Your task to perform on an android device: Open notification settings Image 0: 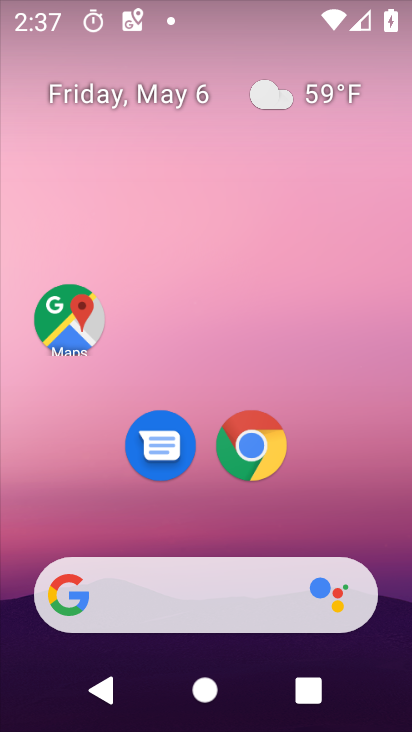
Step 0: drag from (405, 596) to (233, 73)
Your task to perform on an android device: Open notification settings Image 1: 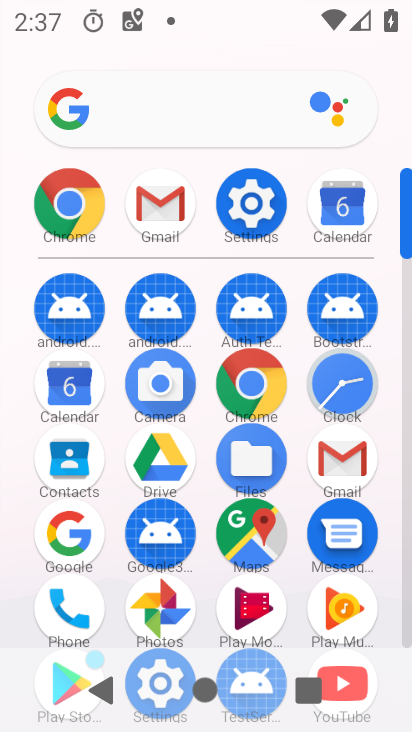
Step 1: click (256, 201)
Your task to perform on an android device: Open notification settings Image 2: 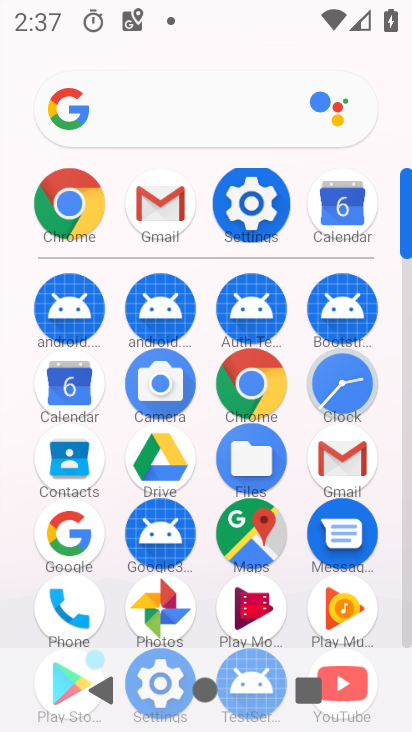
Step 2: click (254, 203)
Your task to perform on an android device: Open notification settings Image 3: 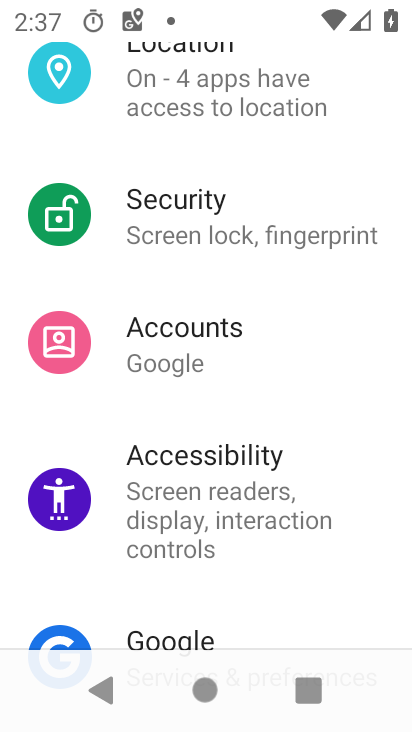
Step 3: drag from (152, 188) to (241, 594)
Your task to perform on an android device: Open notification settings Image 4: 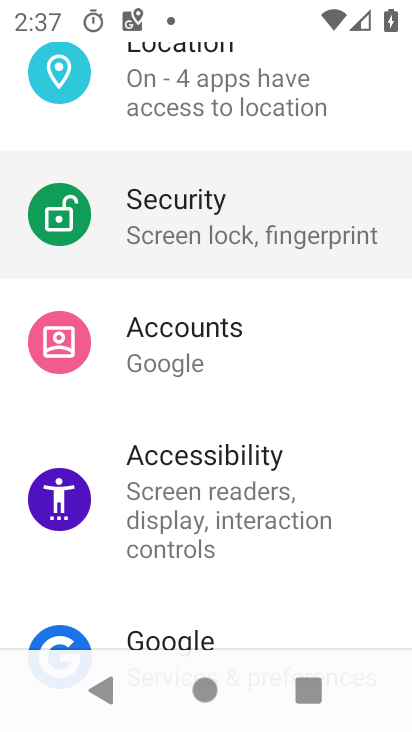
Step 4: drag from (236, 245) to (228, 555)
Your task to perform on an android device: Open notification settings Image 5: 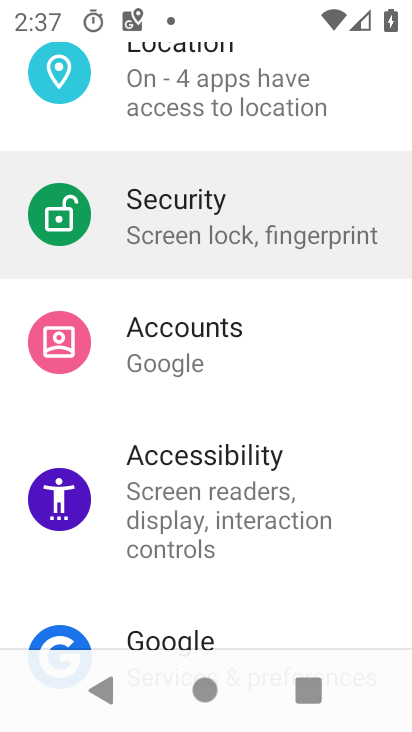
Step 5: drag from (170, 282) to (221, 622)
Your task to perform on an android device: Open notification settings Image 6: 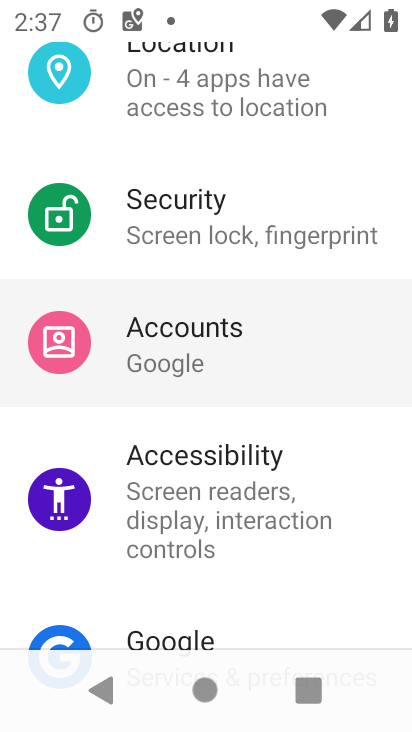
Step 6: drag from (246, 303) to (299, 701)
Your task to perform on an android device: Open notification settings Image 7: 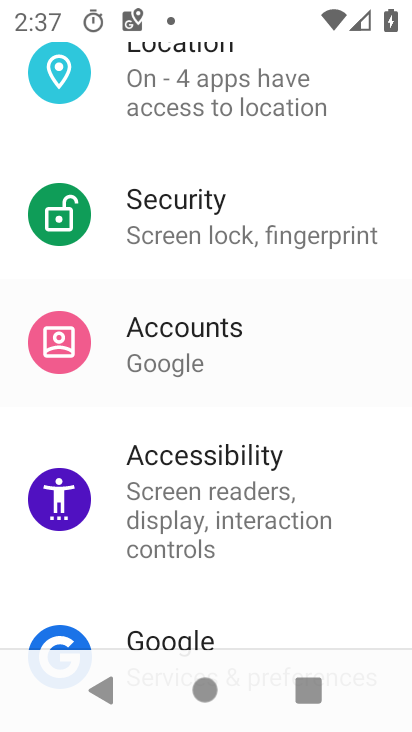
Step 7: drag from (184, 234) to (198, 624)
Your task to perform on an android device: Open notification settings Image 8: 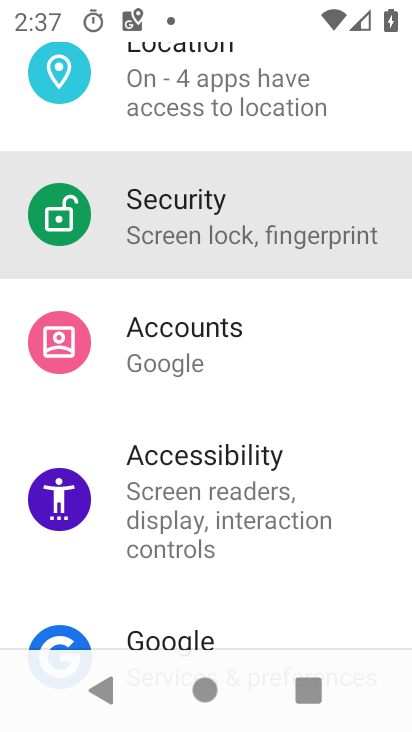
Step 8: drag from (113, 177) to (164, 562)
Your task to perform on an android device: Open notification settings Image 9: 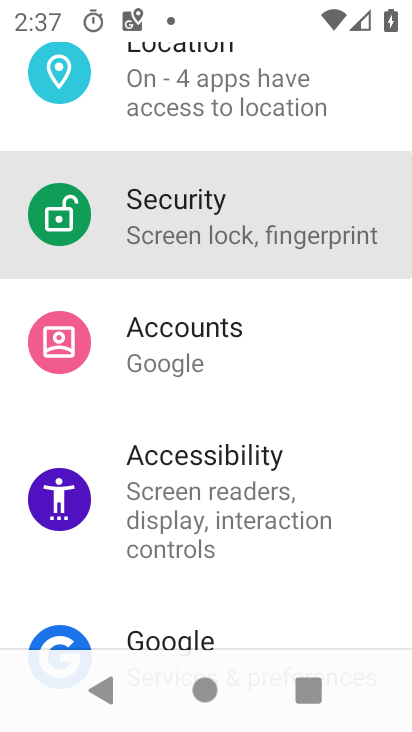
Step 9: drag from (158, 154) to (286, 671)
Your task to perform on an android device: Open notification settings Image 10: 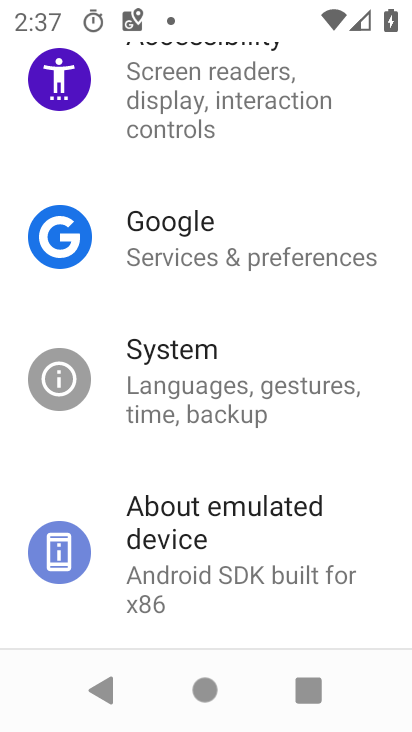
Step 10: drag from (322, 244) to (344, 621)
Your task to perform on an android device: Open notification settings Image 11: 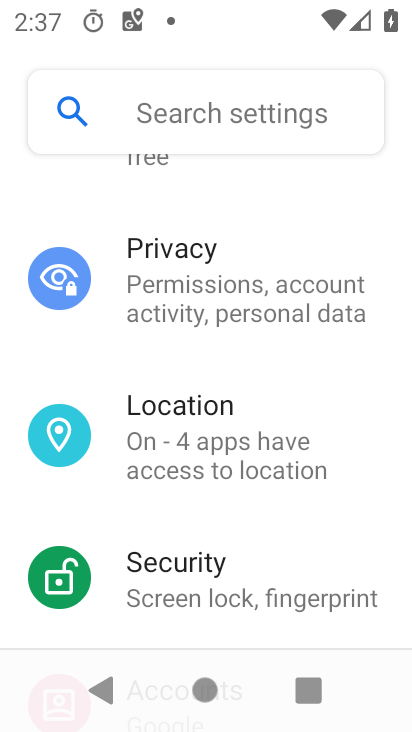
Step 11: drag from (204, 218) to (253, 469)
Your task to perform on an android device: Open notification settings Image 12: 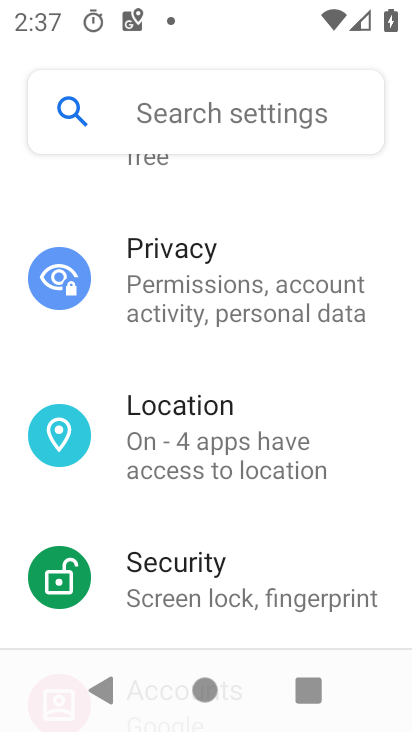
Step 12: drag from (194, 302) to (267, 556)
Your task to perform on an android device: Open notification settings Image 13: 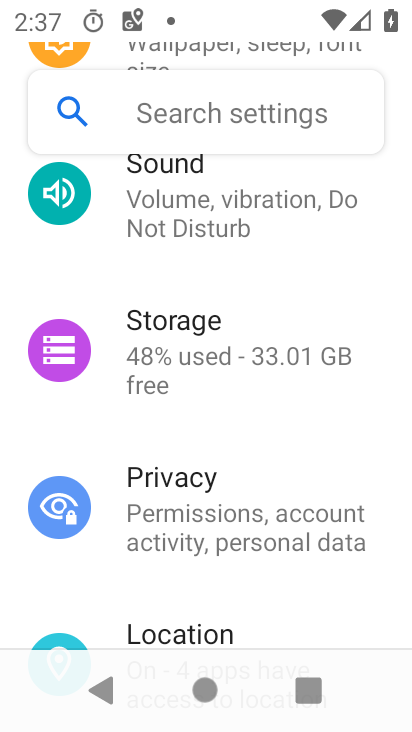
Step 13: drag from (140, 196) to (278, 599)
Your task to perform on an android device: Open notification settings Image 14: 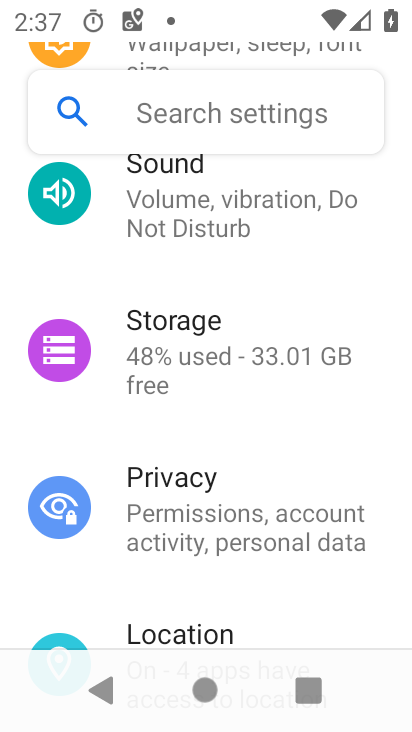
Step 14: drag from (164, 186) to (321, 599)
Your task to perform on an android device: Open notification settings Image 15: 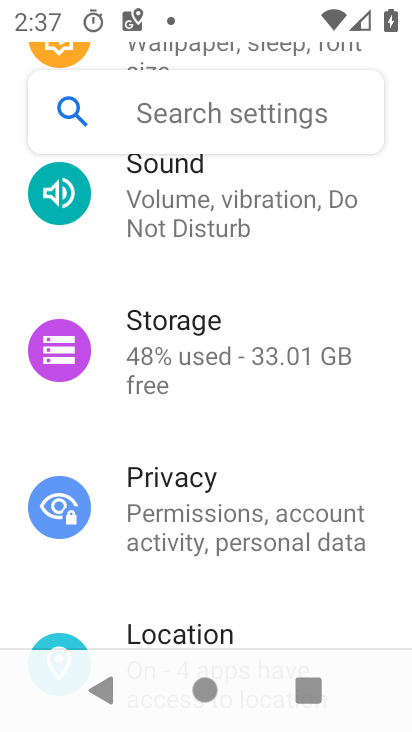
Step 15: drag from (202, 251) to (235, 551)
Your task to perform on an android device: Open notification settings Image 16: 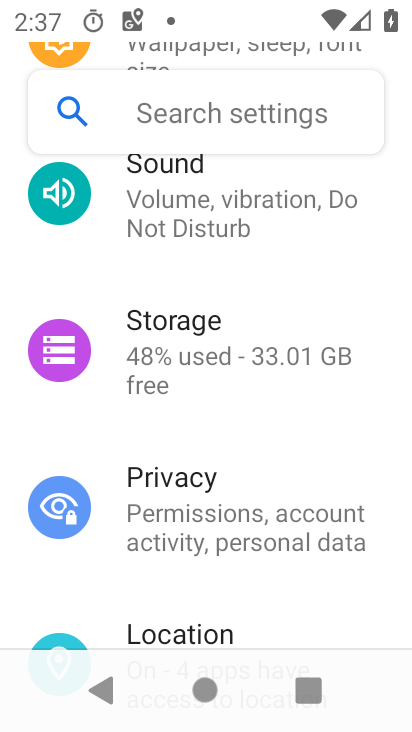
Step 16: drag from (131, 249) to (210, 678)
Your task to perform on an android device: Open notification settings Image 17: 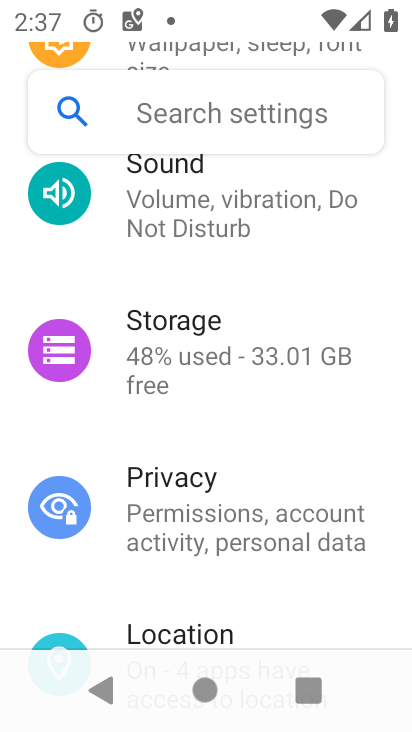
Step 17: drag from (257, 195) to (378, 521)
Your task to perform on an android device: Open notification settings Image 18: 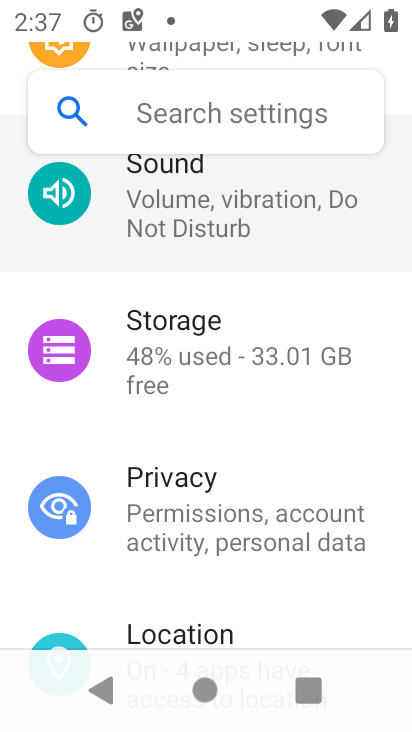
Step 18: drag from (319, 224) to (314, 554)
Your task to perform on an android device: Open notification settings Image 19: 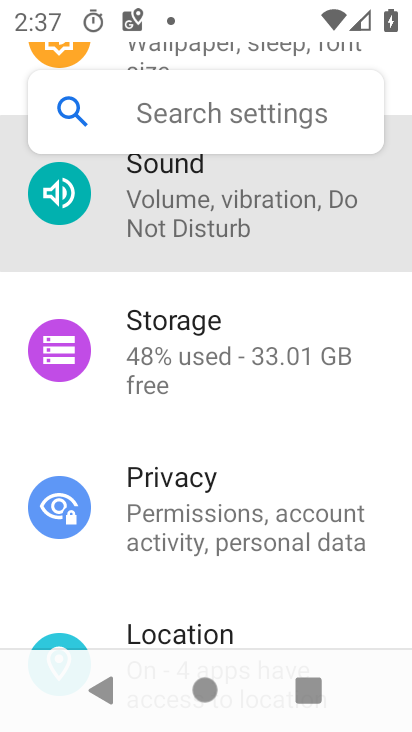
Step 19: drag from (191, 307) to (216, 609)
Your task to perform on an android device: Open notification settings Image 20: 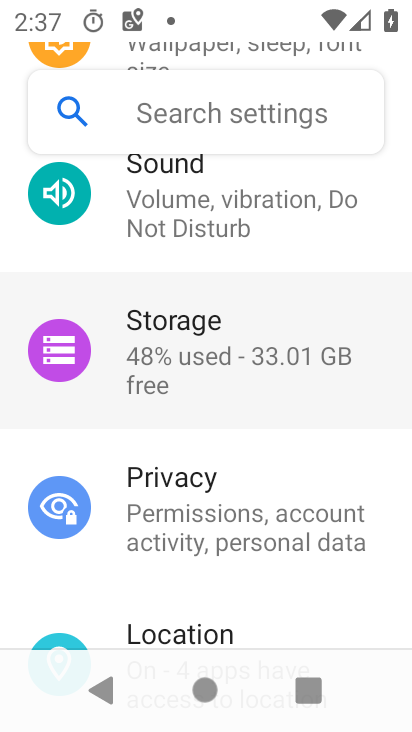
Step 20: drag from (139, 211) to (244, 584)
Your task to perform on an android device: Open notification settings Image 21: 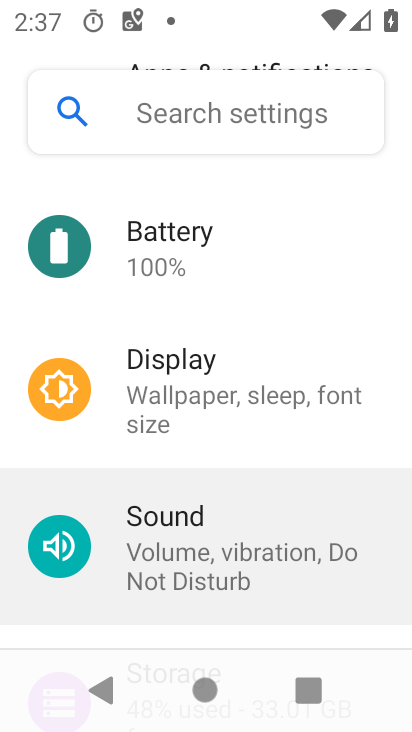
Step 21: drag from (226, 266) to (309, 591)
Your task to perform on an android device: Open notification settings Image 22: 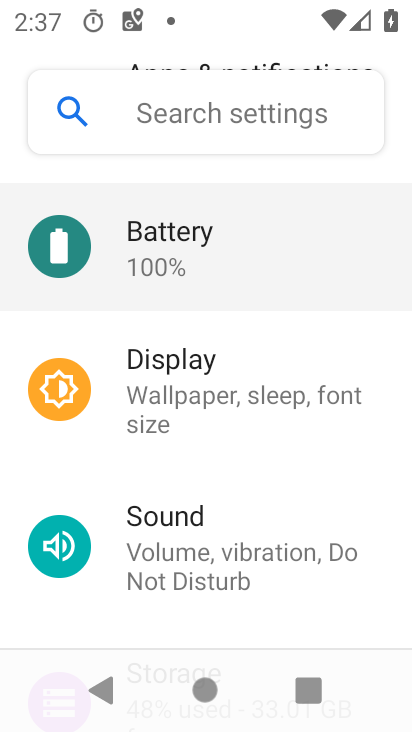
Step 22: drag from (225, 222) to (272, 612)
Your task to perform on an android device: Open notification settings Image 23: 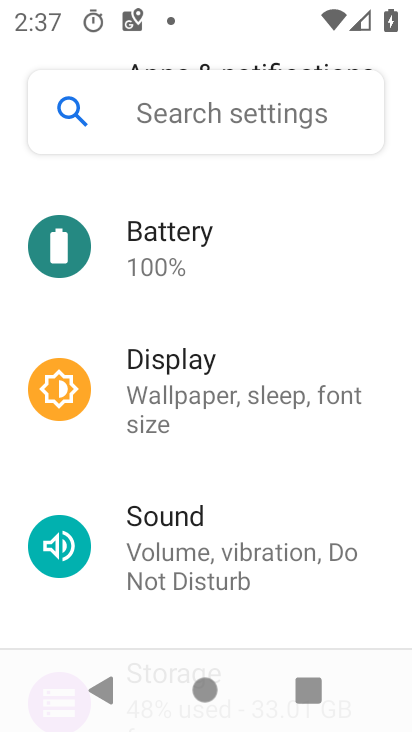
Step 23: drag from (196, 213) to (331, 605)
Your task to perform on an android device: Open notification settings Image 24: 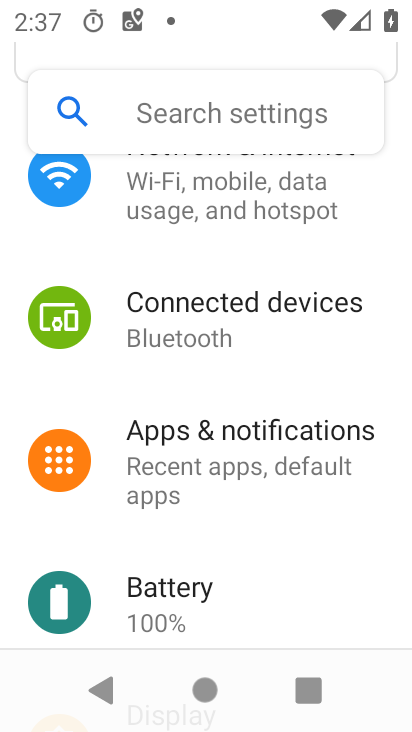
Step 24: drag from (255, 244) to (313, 562)
Your task to perform on an android device: Open notification settings Image 25: 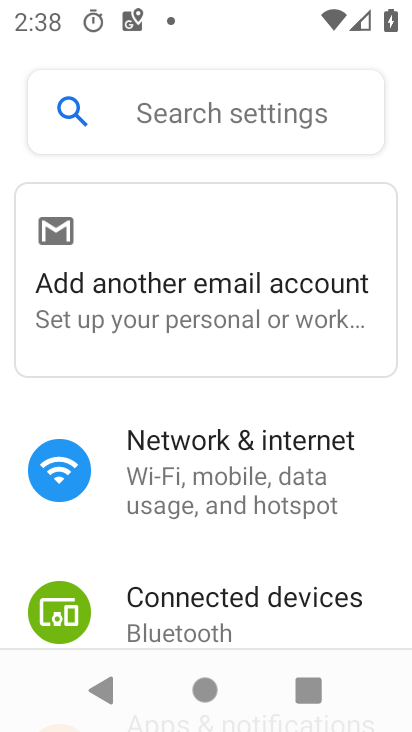
Step 25: drag from (238, 527) to (196, 73)
Your task to perform on an android device: Open notification settings Image 26: 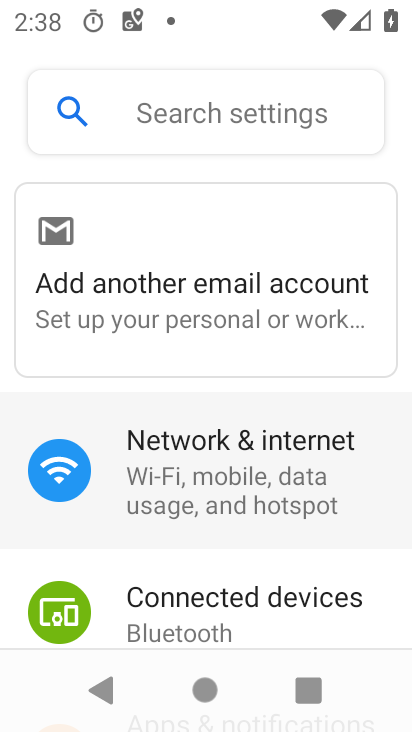
Step 26: drag from (261, 531) to (192, 268)
Your task to perform on an android device: Open notification settings Image 27: 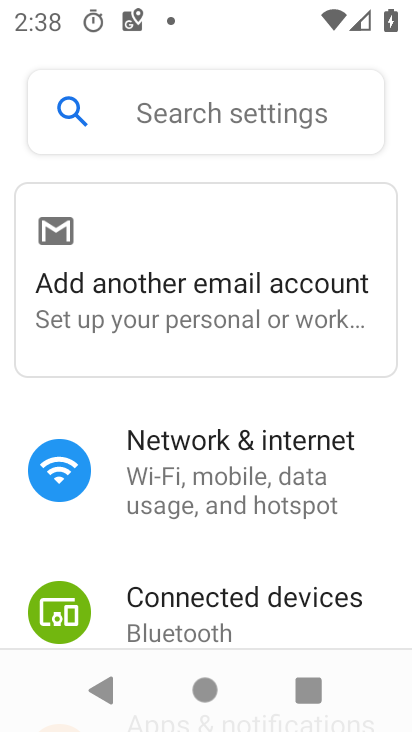
Step 27: drag from (207, 592) to (136, 99)
Your task to perform on an android device: Open notification settings Image 28: 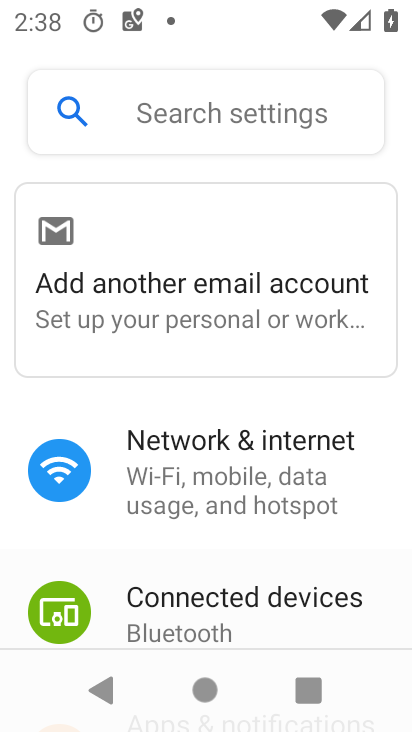
Step 28: drag from (245, 514) to (208, 53)
Your task to perform on an android device: Open notification settings Image 29: 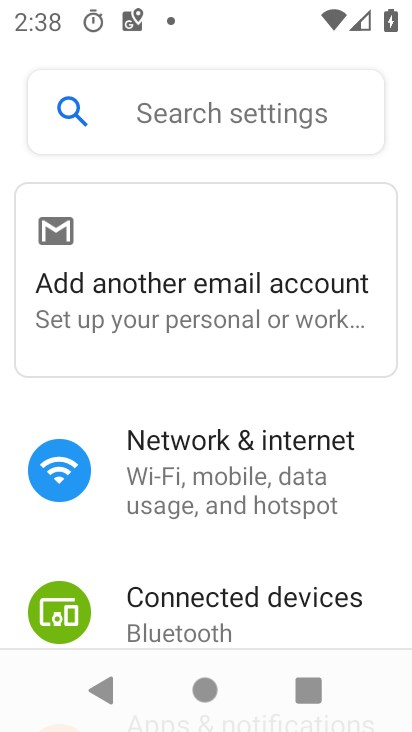
Step 29: drag from (283, 553) to (167, 148)
Your task to perform on an android device: Open notification settings Image 30: 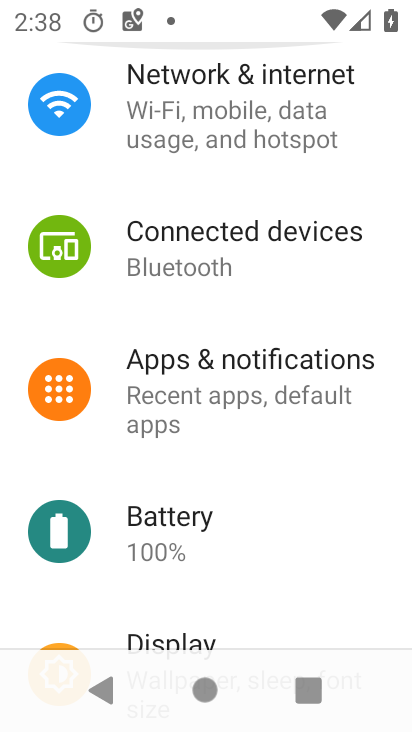
Step 30: drag from (339, 571) to (259, 67)
Your task to perform on an android device: Open notification settings Image 31: 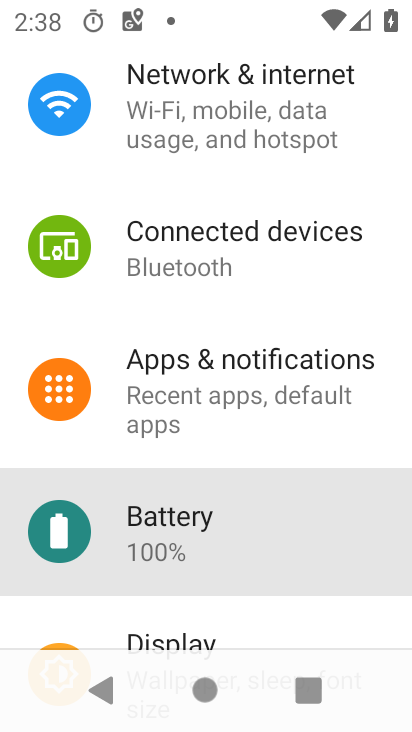
Step 31: drag from (269, 557) to (210, 81)
Your task to perform on an android device: Open notification settings Image 32: 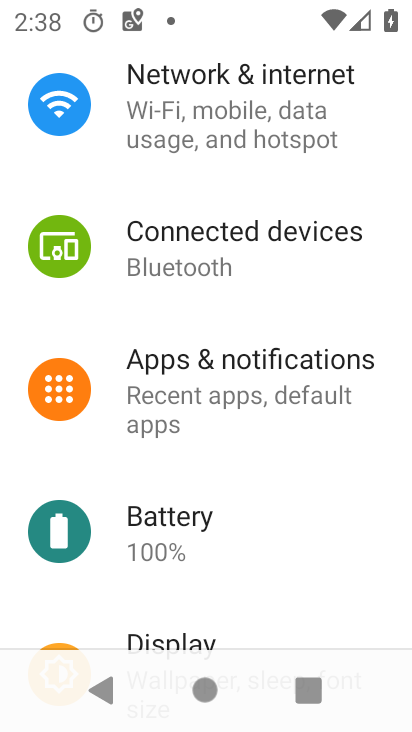
Step 32: click (179, 375)
Your task to perform on an android device: Open notification settings Image 33: 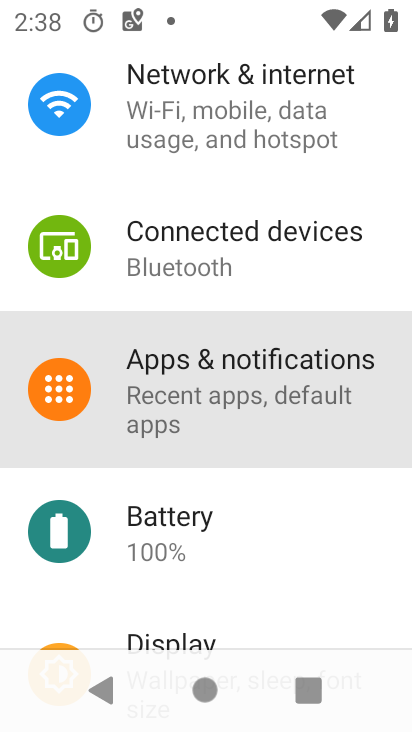
Step 33: click (180, 375)
Your task to perform on an android device: Open notification settings Image 34: 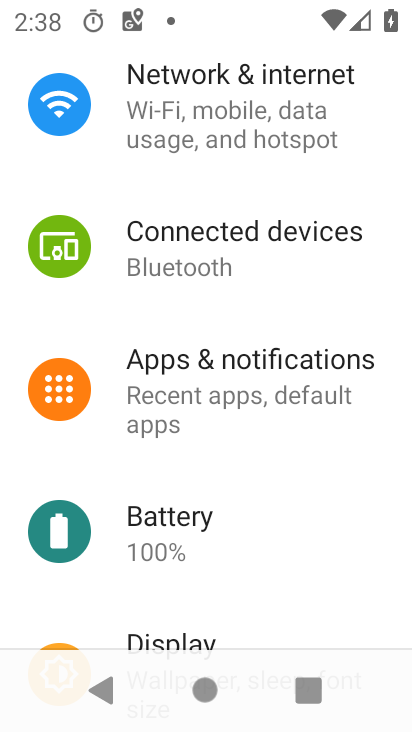
Step 34: click (180, 375)
Your task to perform on an android device: Open notification settings Image 35: 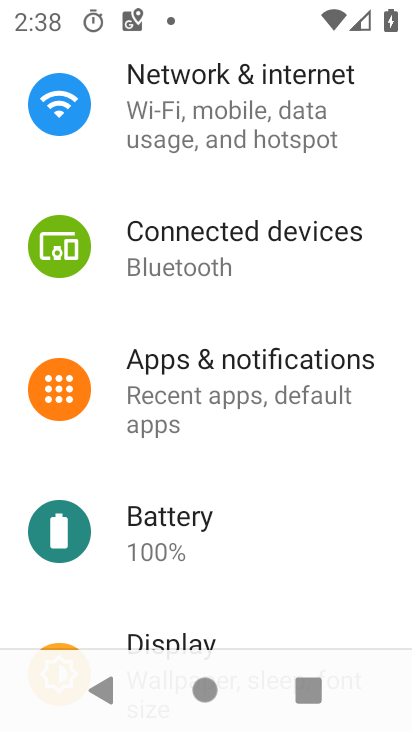
Step 35: click (176, 396)
Your task to perform on an android device: Open notification settings Image 36: 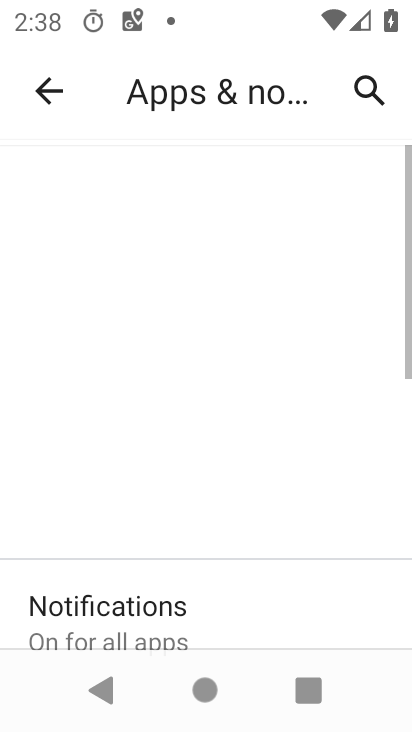
Step 36: click (263, 366)
Your task to perform on an android device: Open notification settings Image 37: 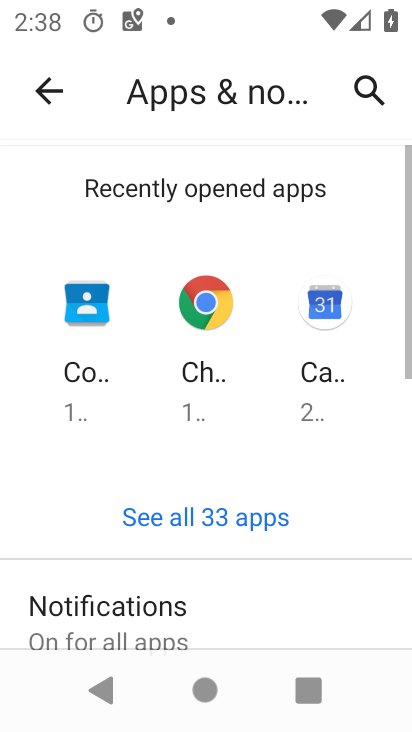
Step 37: task complete